Your task to perform on an android device: toggle notifications settings in the gmail app Image 0: 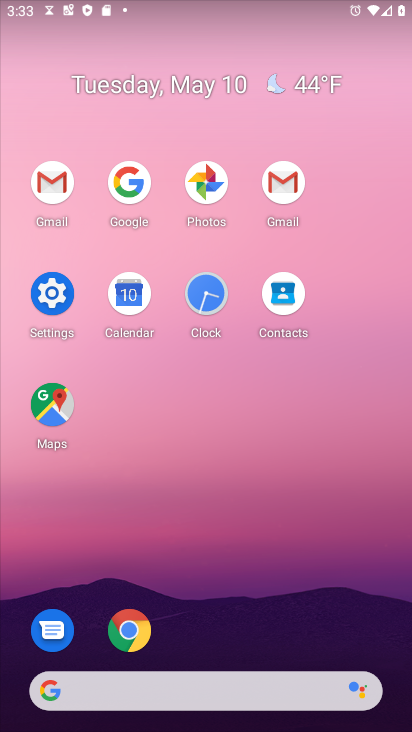
Step 0: click (304, 195)
Your task to perform on an android device: toggle notifications settings in the gmail app Image 1: 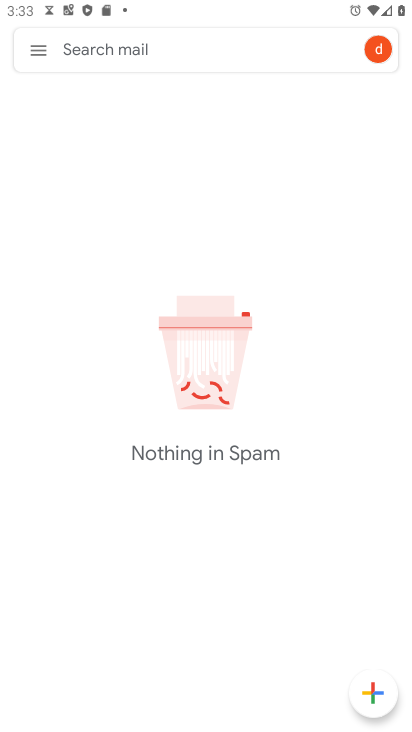
Step 1: click (31, 48)
Your task to perform on an android device: toggle notifications settings in the gmail app Image 2: 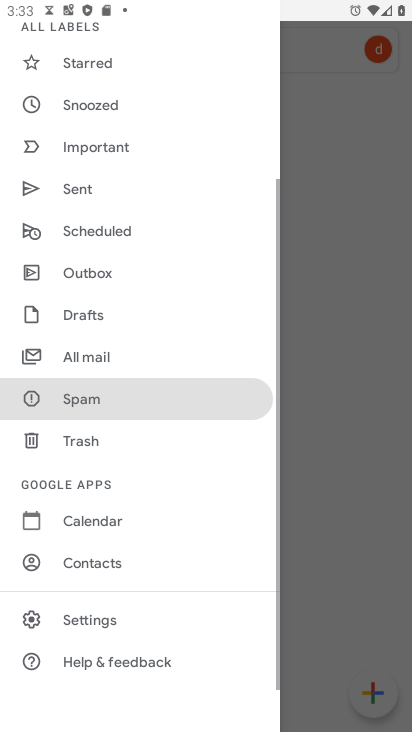
Step 2: click (168, 608)
Your task to perform on an android device: toggle notifications settings in the gmail app Image 3: 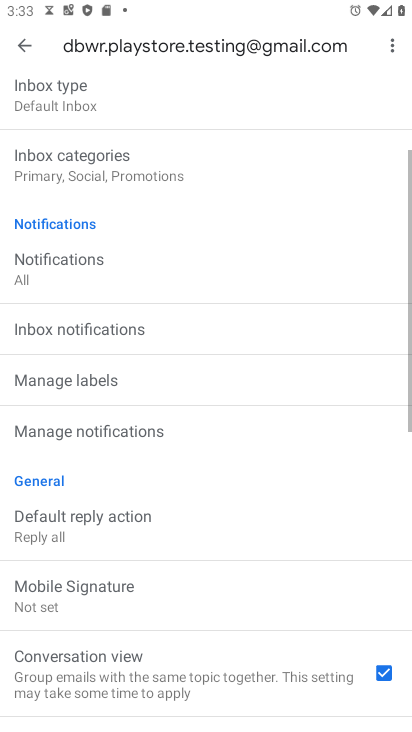
Step 3: click (157, 274)
Your task to perform on an android device: toggle notifications settings in the gmail app Image 4: 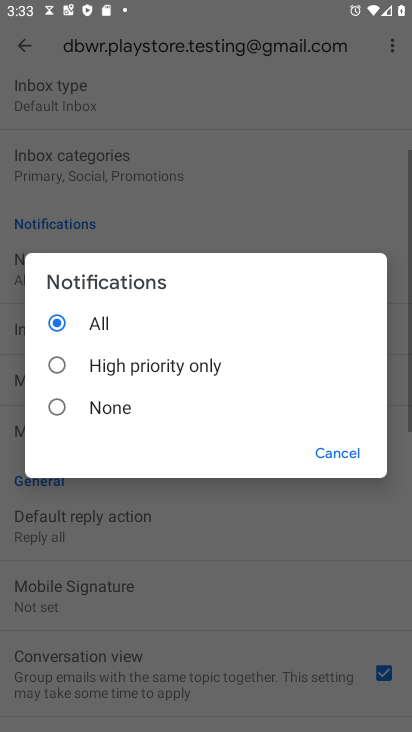
Step 4: click (152, 382)
Your task to perform on an android device: toggle notifications settings in the gmail app Image 5: 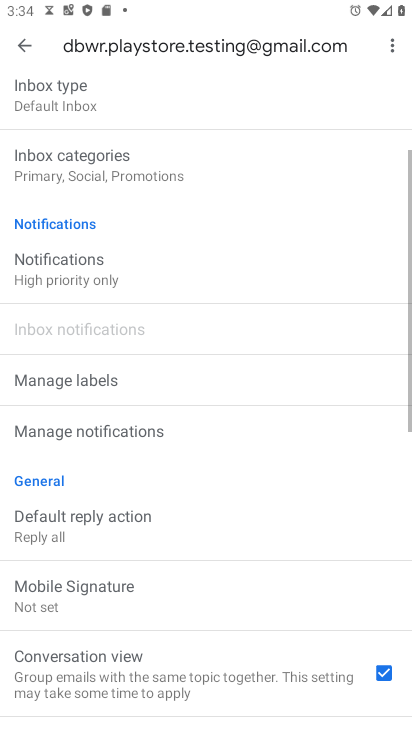
Step 5: task complete